Your task to perform on an android device: turn off priority inbox in the gmail app Image 0: 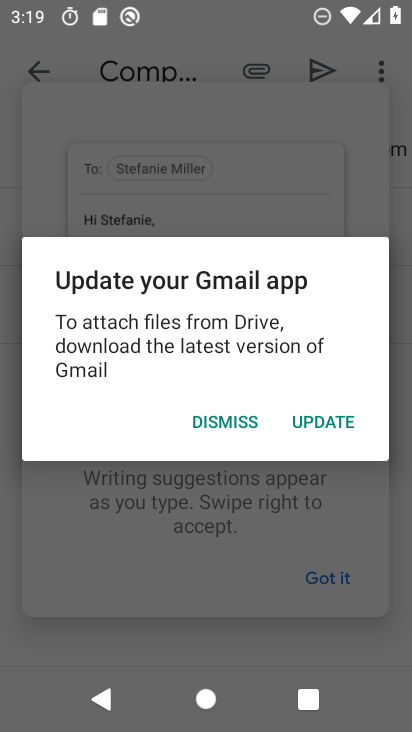
Step 0: press home button
Your task to perform on an android device: turn off priority inbox in the gmail app Image 1: 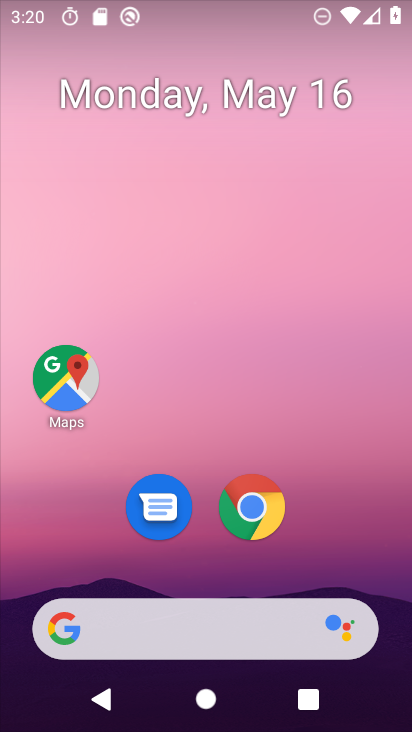
Step 1: drag from (361, 541) to (255, 37)
Your task to perform on an android device: turn off priority inbox in the gmail app Image 2: 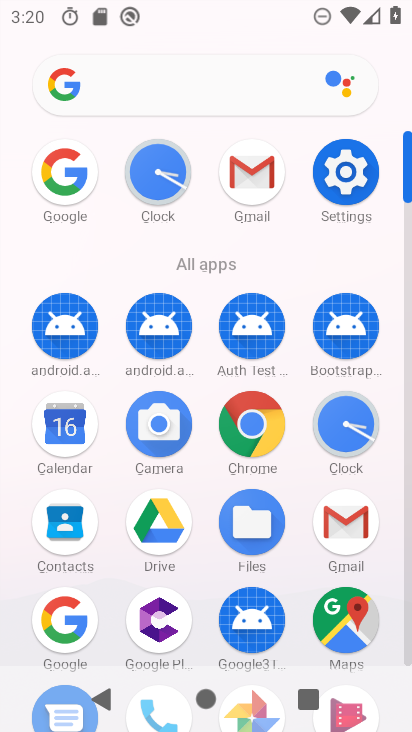
Step 2: click (269, 172)
Your task to perform on an android device: turn off priority inbox in the gmail app Image 3: 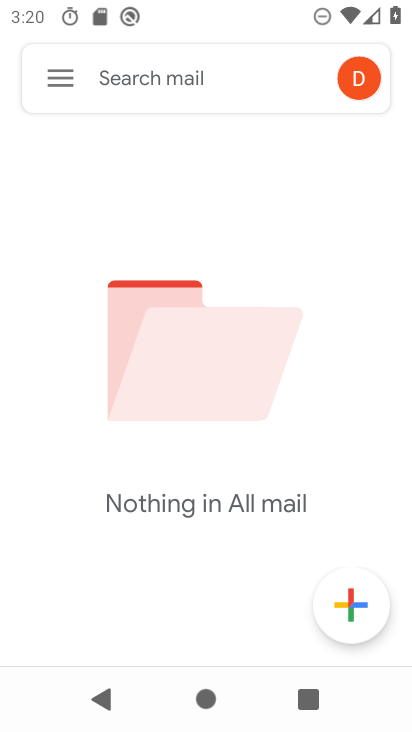
Step 3: click (48, 82)
Your task to perform on an android device: turn off priority inbox in the gmail app Image 4: 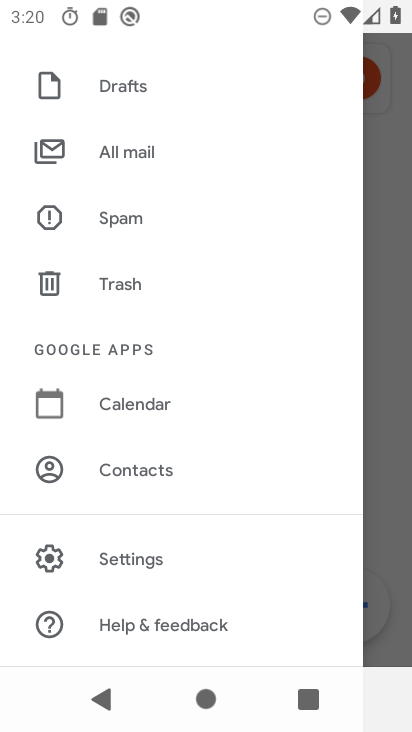
Step 4: click (161, 549)
Your task to perform on an android device: turn off priority inbox in the gmail app Image 5: 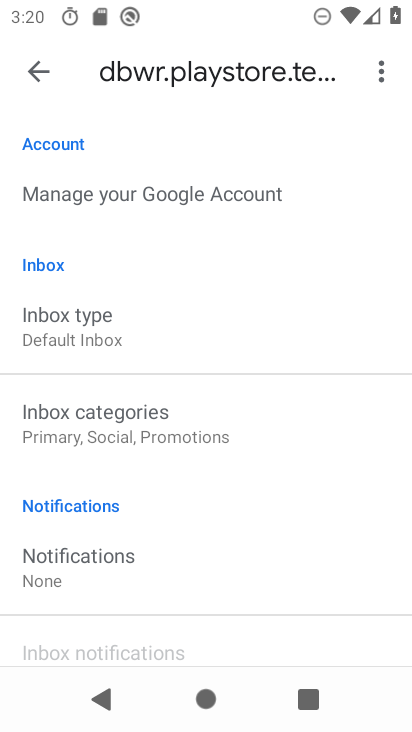
Step 5: click (89, 305)
Your task to perform on an android device: turn off priority inbox in the gmail app Image 6: 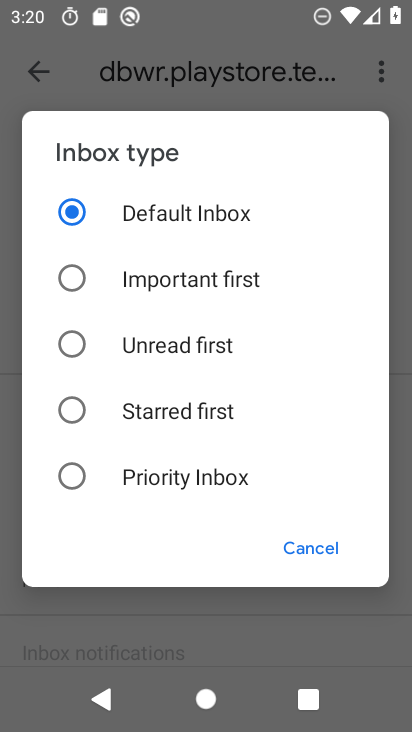
Step 6: task complete